Your task to perform on an android device: manage bookmarks in the chrome app Image 0: 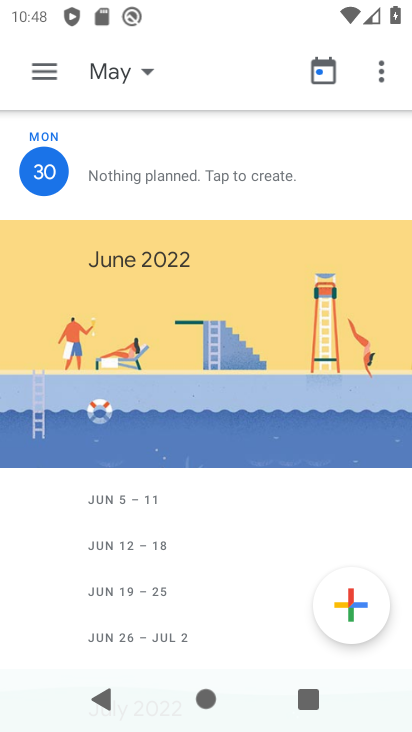
Step 0: press home button
Your task to perform on an android device: manage bookmarks in the chrome app Image 1: 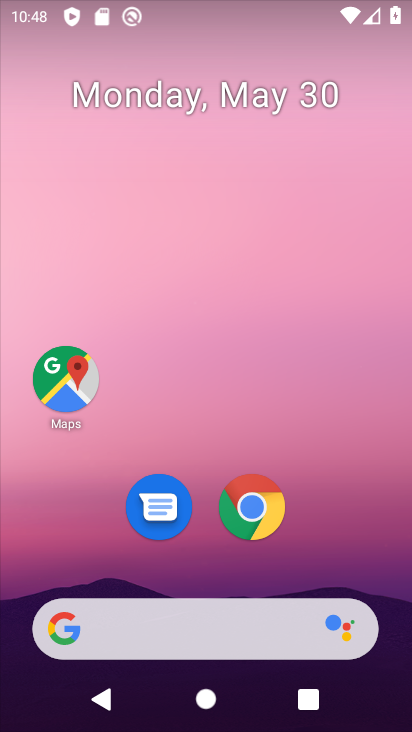
Step 1: click (266, 516)
Your task to perform on an android device: manage bookmarks in the chrome app Image 2: 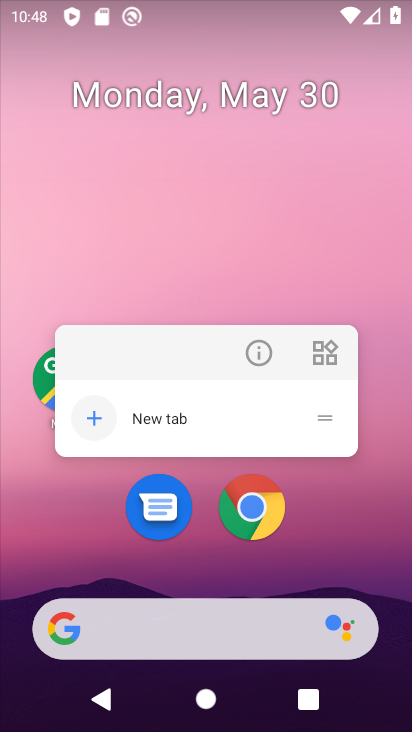
Step 2: click (266, 509)
Your task to perform on an android device: manage bookmarks in the chrome app Image 3: 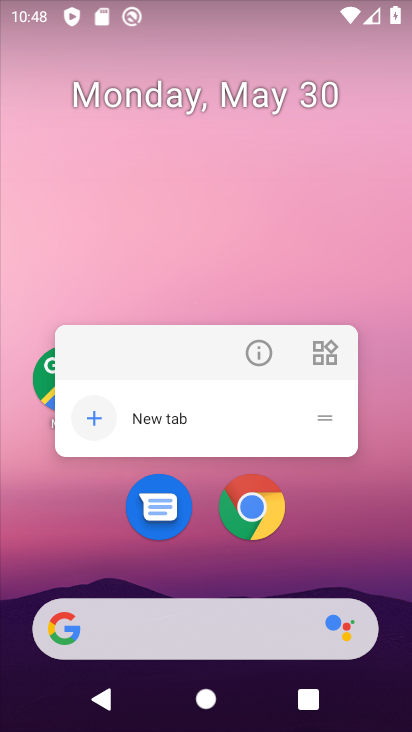
Step 3: click (248, 522)
Your task to perform on an android device: manage bookmarks in the chrome app Image 4: 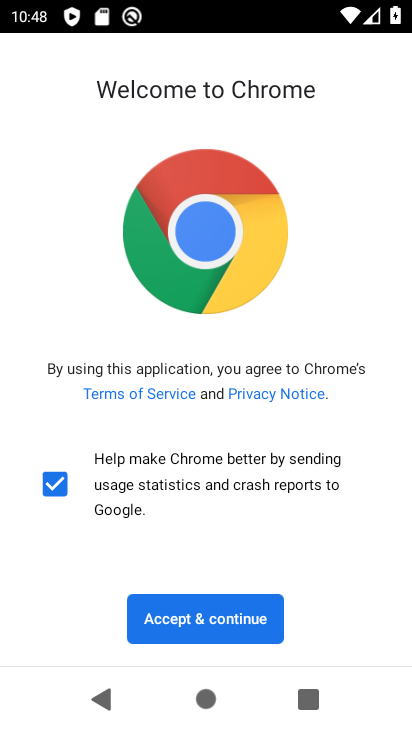
Step 4: click (263, 614)
Your task to perform on an android device: manage bookmarks in the chrome app Image 5: 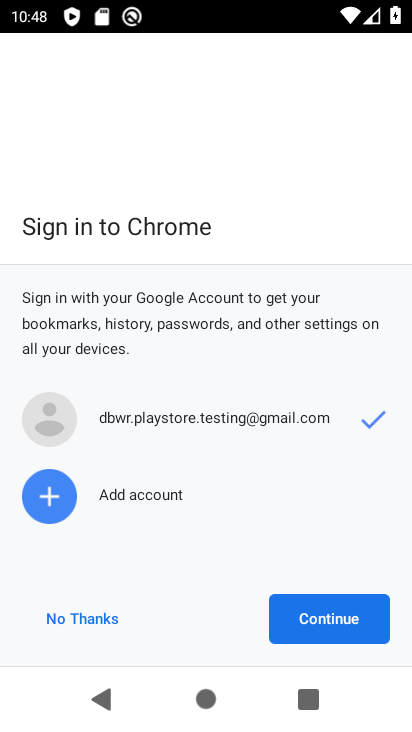
Step 5: click (294, 619)
Your task to perform on an android device: manage bookmarks in the chrome app Image 6: 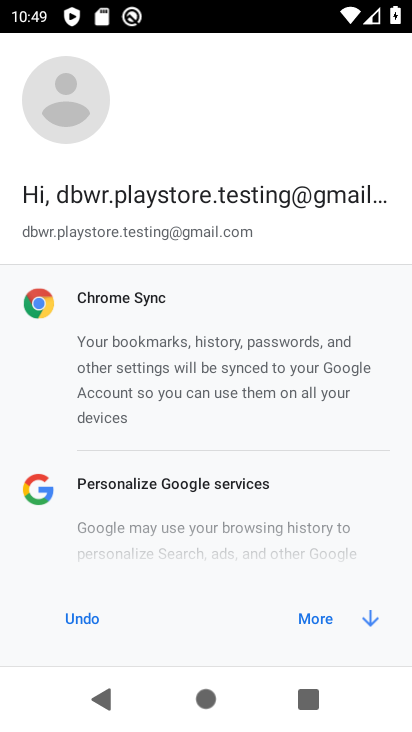
Step 6: click (332, 617)
Your task to perform on an android device: manage bookmarks in the chrome app Image 7: 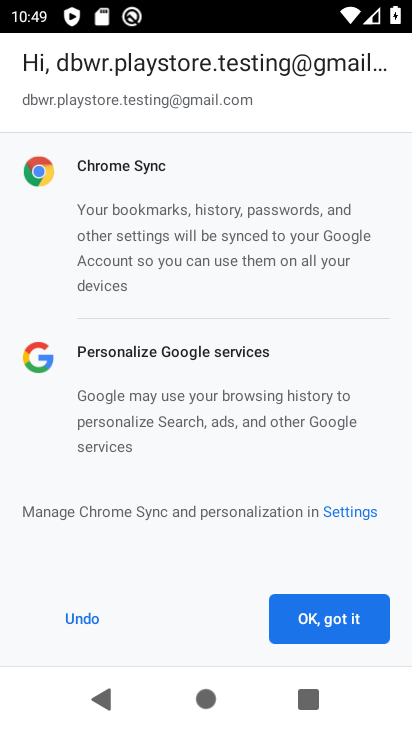
Step 7: click (353, 628)
Your task to perform on an android device: manage bookmarks in the chrome app Image 8: 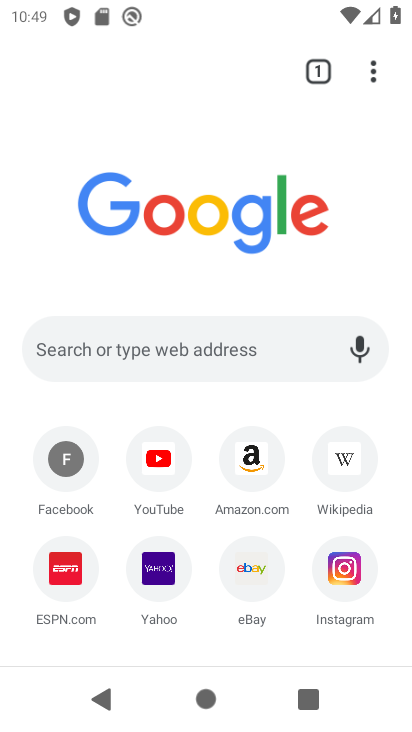
Step 8: click (366, 68)
Your task to perform on an android device: manage bookmarks in the chrome app Image 9: 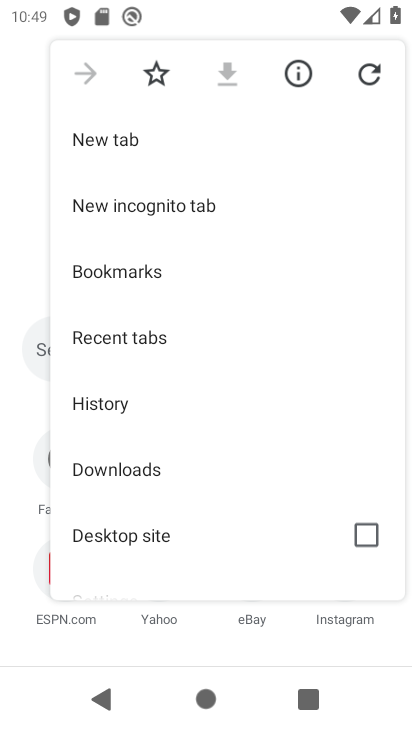
Step 9: click (113, 271)
Your task to perform on an android device: manage bookmarks in the chrome app Image 10: 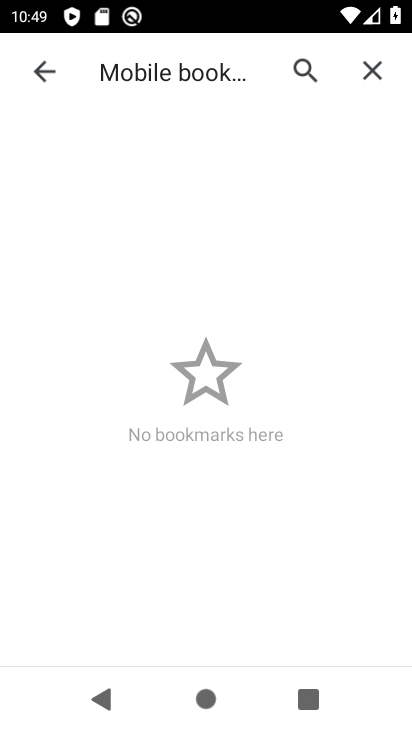
Step 10: task complete